Your task to perform on an android device: open wifi settings Image 0: 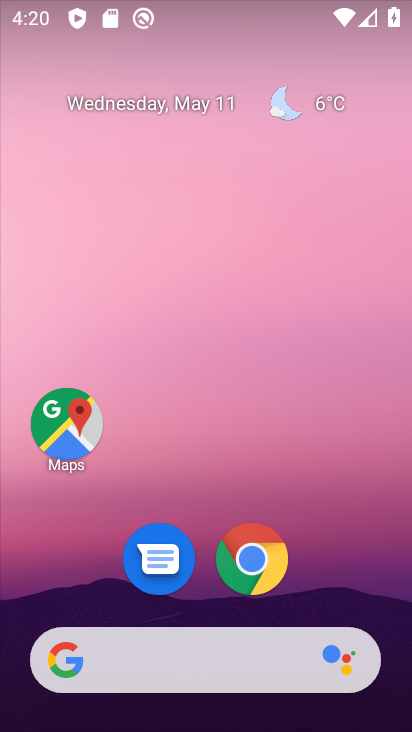
Step 0: drag from (242, 363) to (196, 53)
Your task to perform on an android device: open wifi settings Image 1: 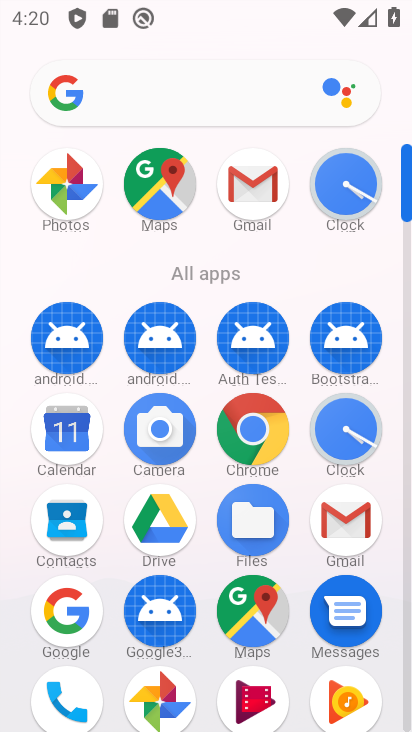
Step 1: drag from (228, 558) to (265, 379)
Your task to perform on an android device: open wifi settings Image 2: 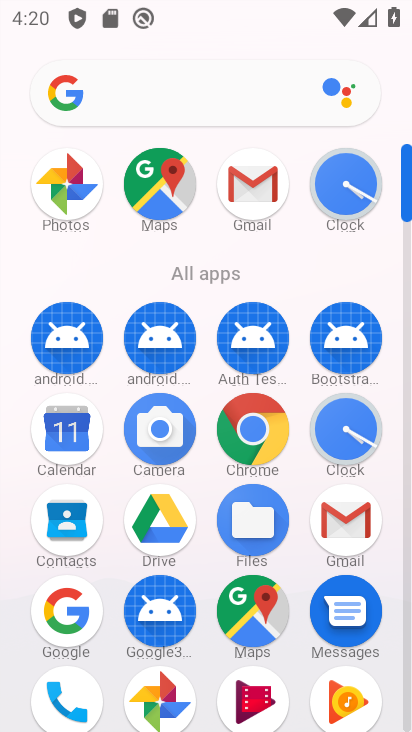
Step 2: drag from (198, 611) to (256, 266)
Your task to perform on an android device: open wifi settings Image 3: 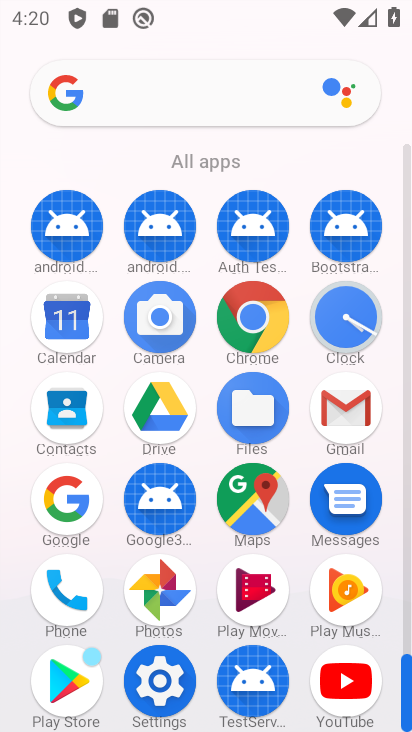
Step 3: click (182, 698)
Your task to perform on an android device: open wifi settings Image 4: 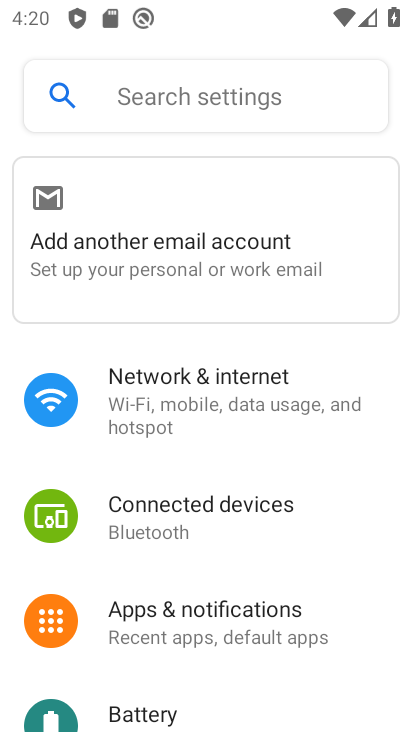
Step 4: click (219, 409)
Your task to perform on an android device: open wifi settings Image 5: 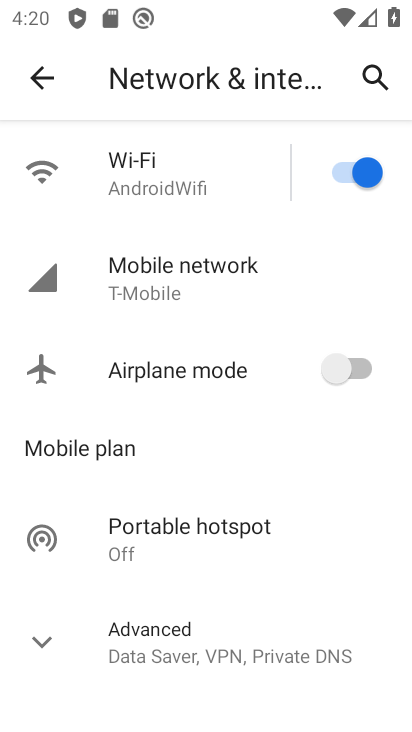
Step 5: click (142, 182)
Your task to perform on an android device: open wifi settings Image 6: 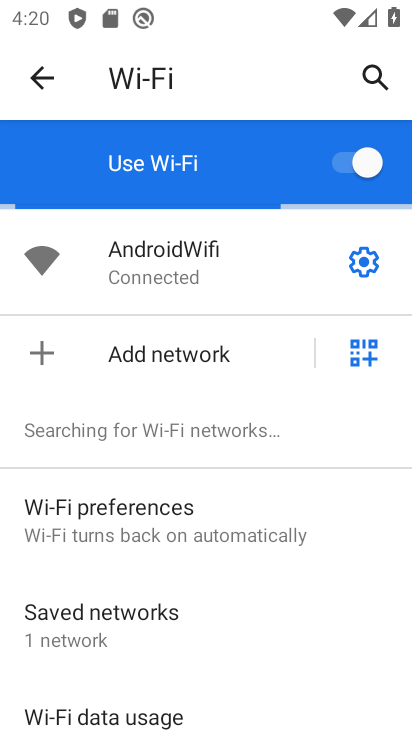
Step 6: task complete